Your task to perform on an android device: Open Android settings Image 0: 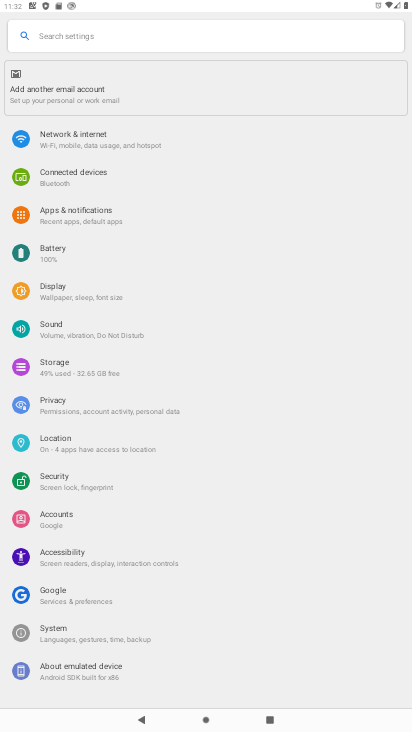
Step 0: task complete